Your task to perform on an android device: How much does the HisenseTV cost? Image 0: 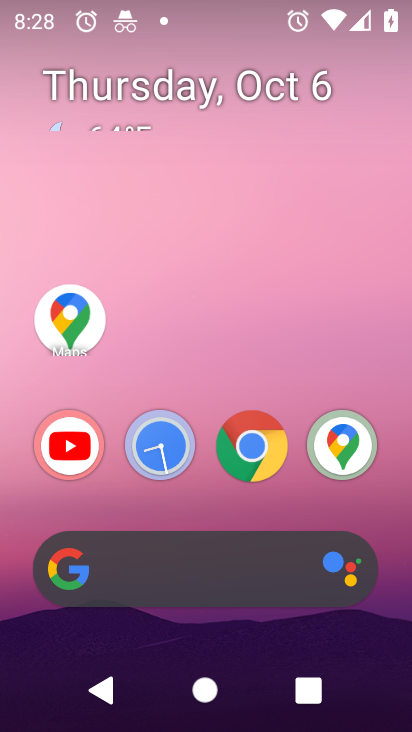
Step 0: click (192, 574)
Your task to perform on an android device: How much does the HisenseTV cost? Image 1: 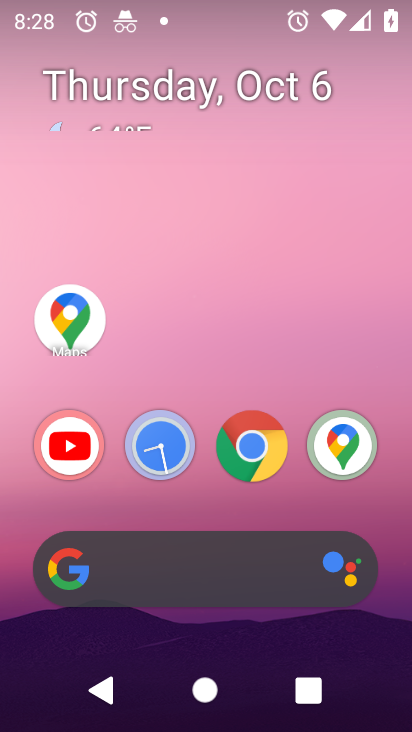
Step 1: click (192, 574)
Your task to perform on an android device: How much does the HisenseTV cost? Image 2: 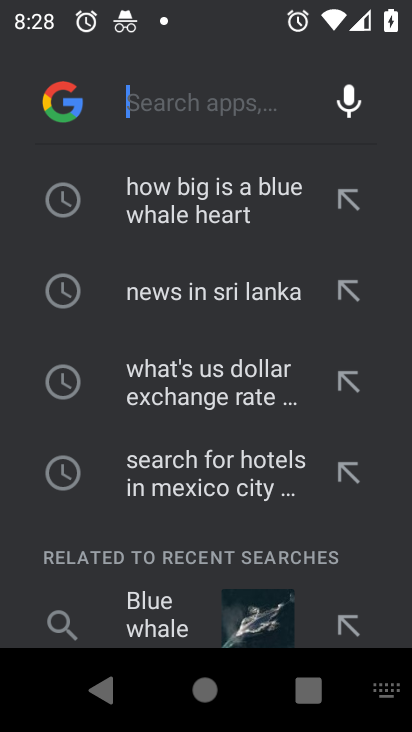
Step 2: type "How much does the HisenseTV cost?"
Your task to perform on an android device: How much does the HisenseTV cost? Image 3: 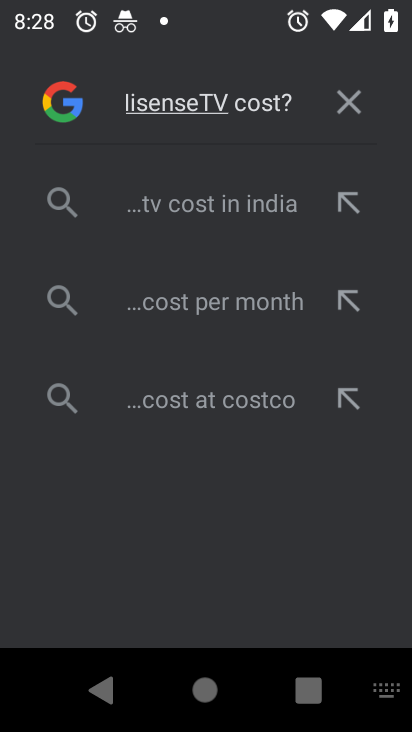
Step 3: click (194, 209)
Your task to perform on an android device: How much does the HisenseTV cost? Image 4: 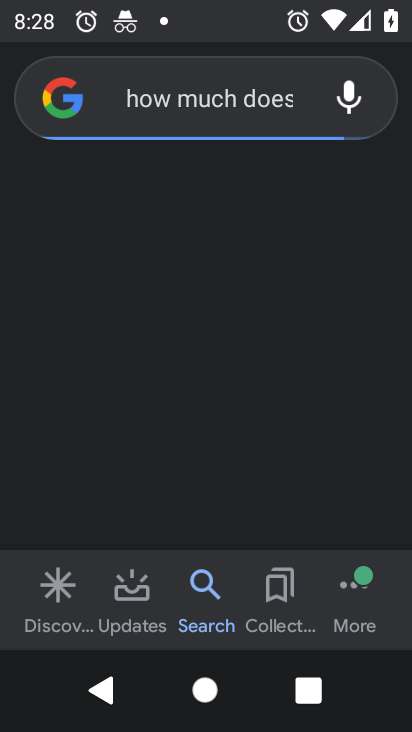
Step 4: task complete